Your task to perform on an android device: Install the Yelp app Image 0: 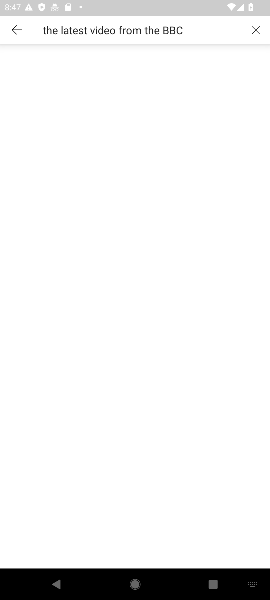
Step 0: press home button
Your task to perform on an android device: Install the Yelp app Image 1: 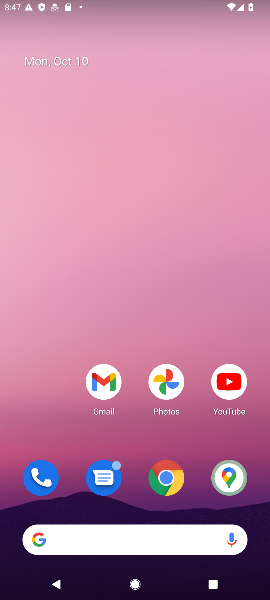
Step 1: drag from (146, 507) to (168, 101)
Your task to perform on an android device: Install the Yelp app Image 2: 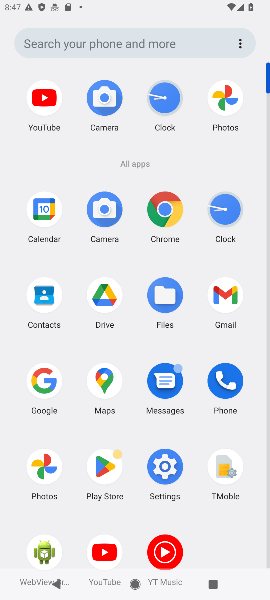
Step 2: click (107, 472)
Your task to perform on an android device: Install the Yelp app Image 3: 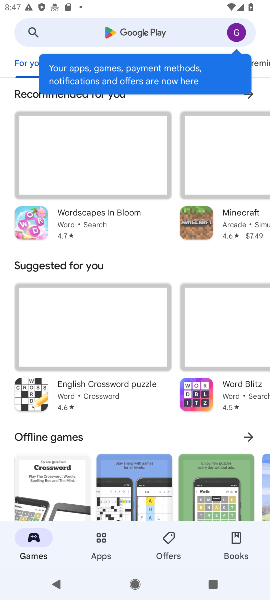
Step 3: click (166, 38)
Your task to perform on an android device: Install the Yelp app Image 4: 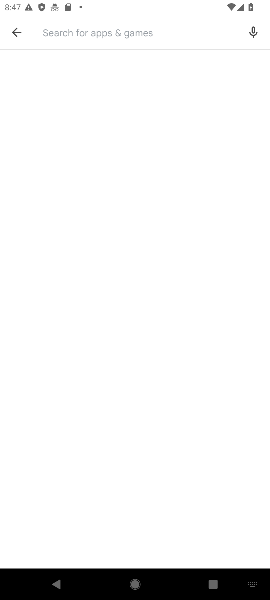
Step 4: type "Yelp"
Your task to perform on an android device: Install the Yelp app Image 5: 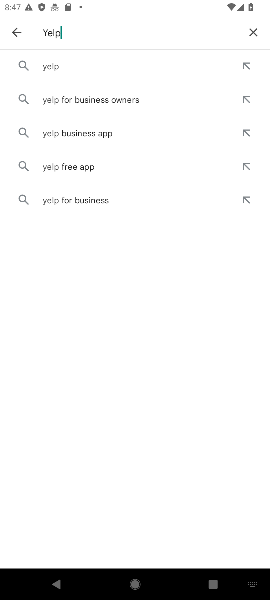
Step 5: click (98, 69)
Your task to perform on an android device: Install the Yelp app Image 6: 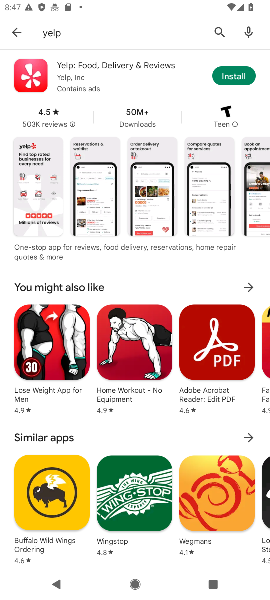
Step 6: click (233, 74)
Your task to perform on an android device: Install the Yelp app Image 7: 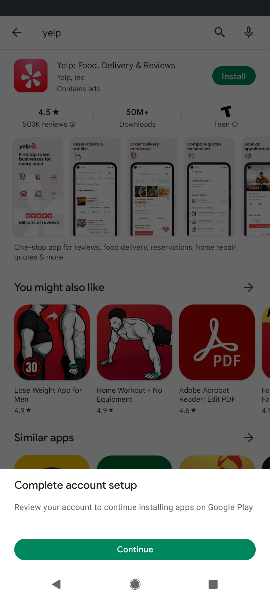
Step 7: click (128, 550)
Your task to perform on an android device: Install the Yelp app Image 8: 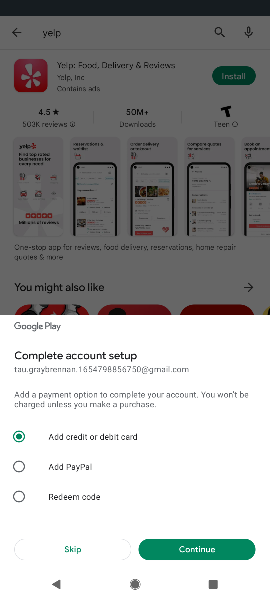
Step 8: click (75, 549)
Your task to perform on an android device: Install the Yelp app Image 9: 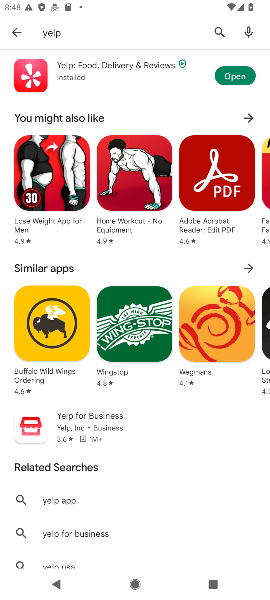
Step 9: task complete